Your task to perform on an android device: Search for dining sets on article.com Image 0: 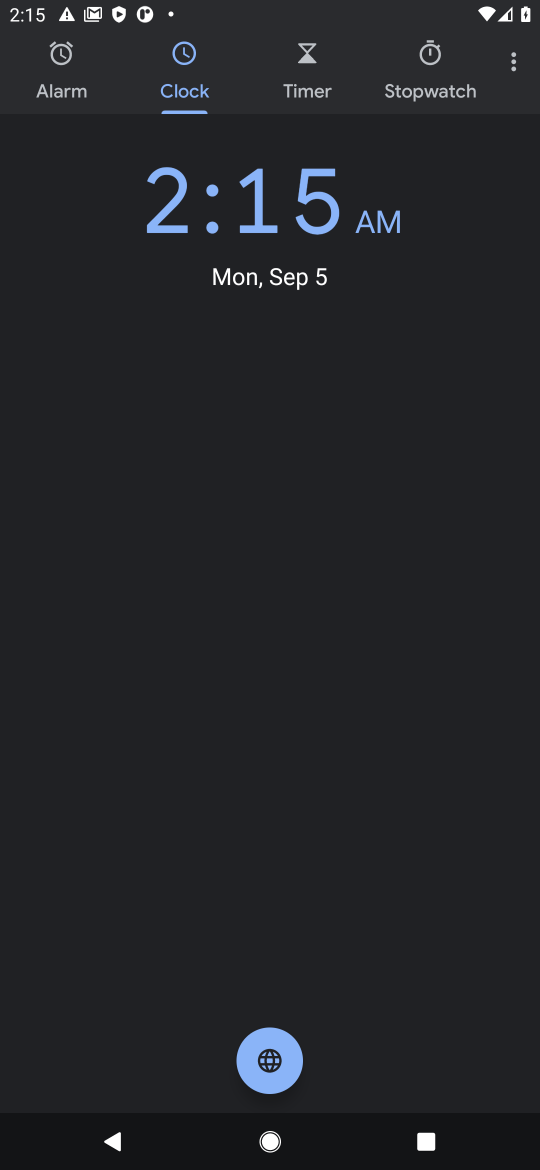
Step 0: task complete